Your task to perform on an android device: Open notification settings Image 0: 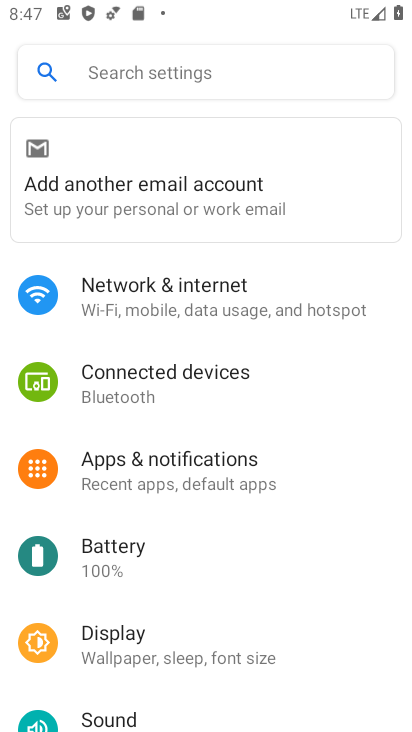
Step 0: click (204, 479)
Your task to perform on an android device: Open notification settings Image 1: 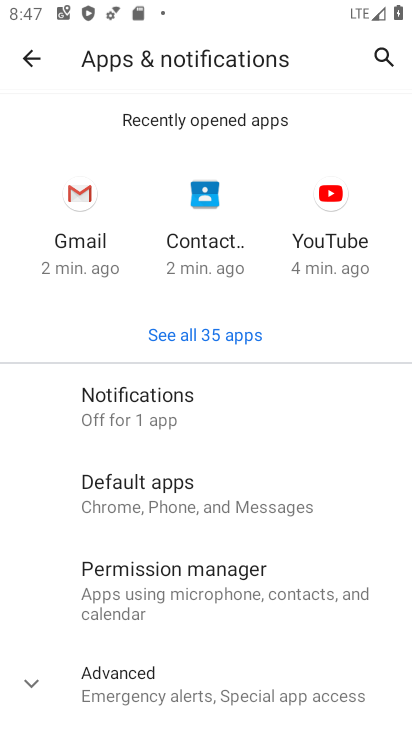
Step 1: click (185, 411)
Your task to perform on an android device: Open notification settings Image 2: 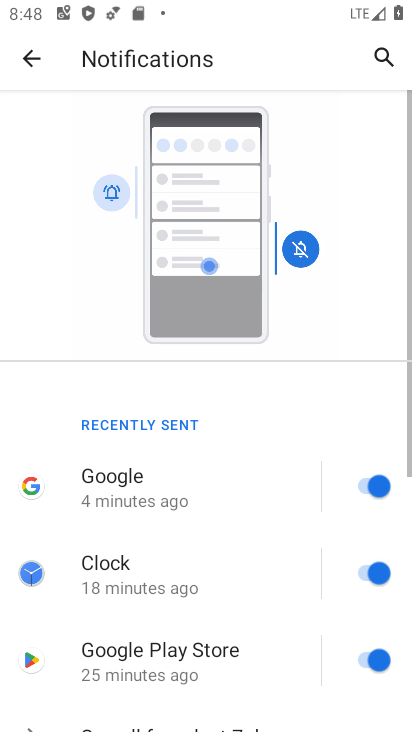
Step 2: task complete